Your task to perform on an android device: check android version Image 0: 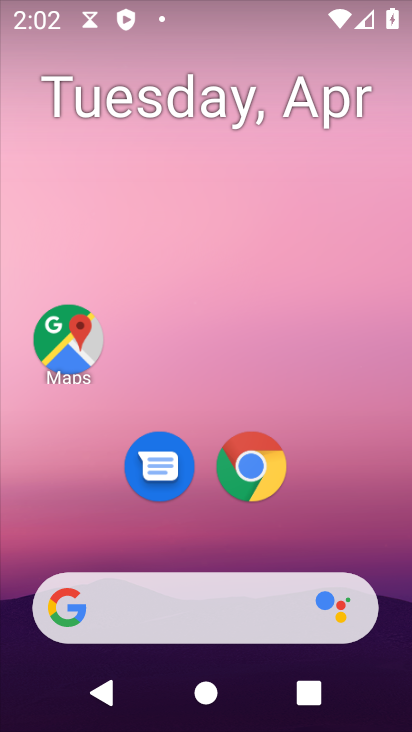
Step 0: drag from (333, 544) to (256, 39)
Your task to perform on an android device: check android version Image 1: 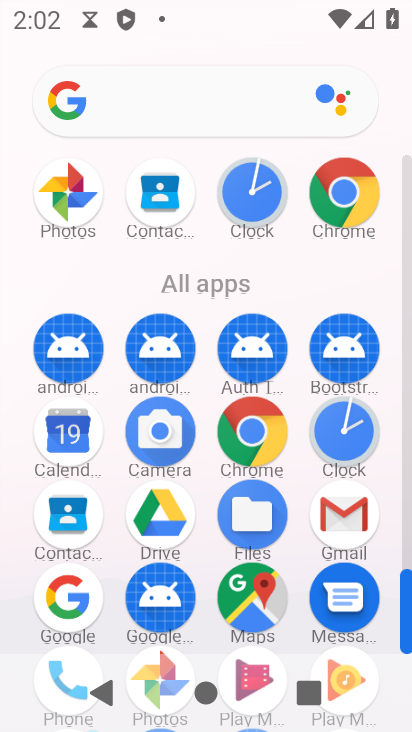
Step 1: drag from (12, 550) to (33, 205)
Your task to perform on an android device: check android version Image 2: 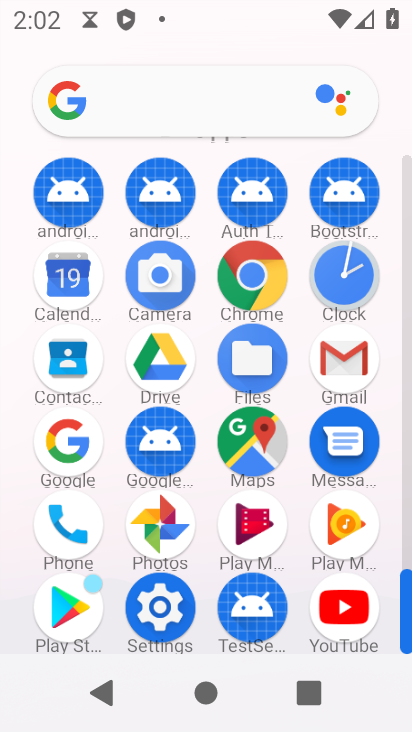
Step 2: click (164, 606)
Your task to perform on an android device: check android version Image 3: 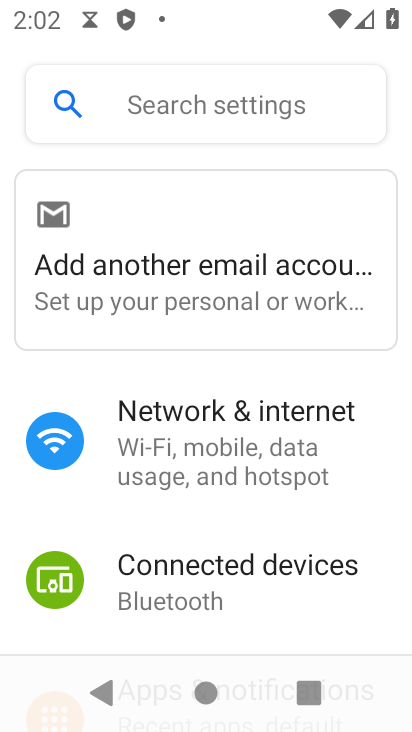
Step 3: drag from (365, 573) to (351, 81)
Your task to perform on an android device: check android version Image 4: 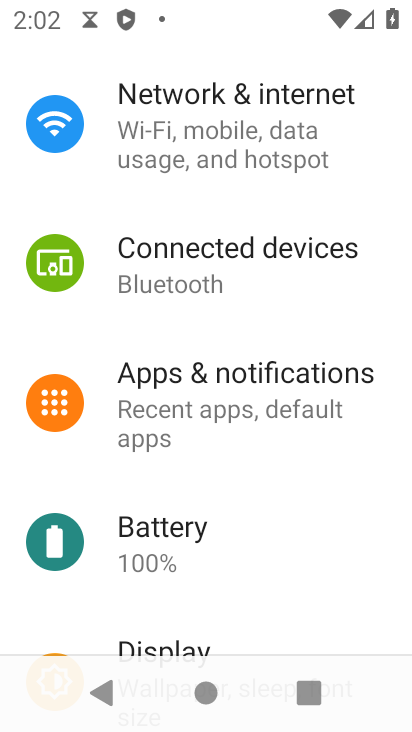
Step 4: drag from (321, 518) to (327, 109)
Your task to perform on an android device: check android version Image 5: 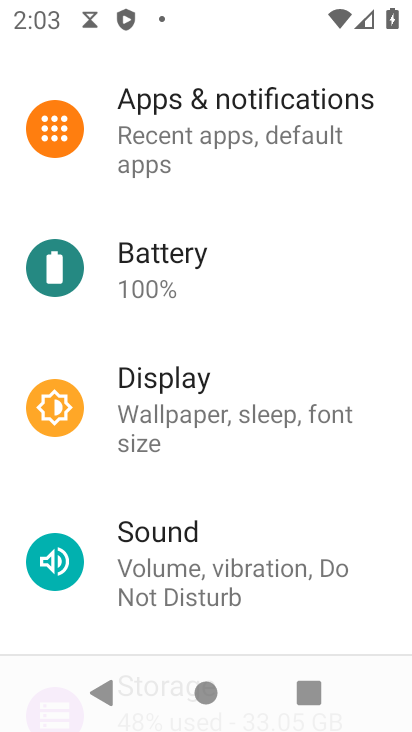
Step 5: drag from (293, 498) to (303, 117)
Your task to perform on an android device: check android version Image 6: 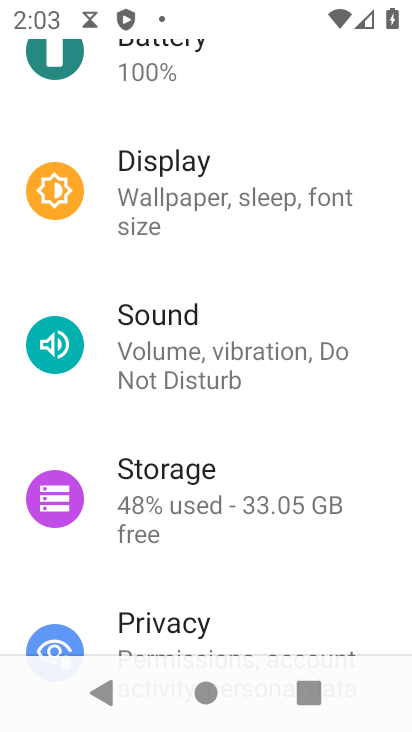
Step 6: drag from (292, 493) to (302, 130)
Your task to perform on an android device: check android version Image 7: 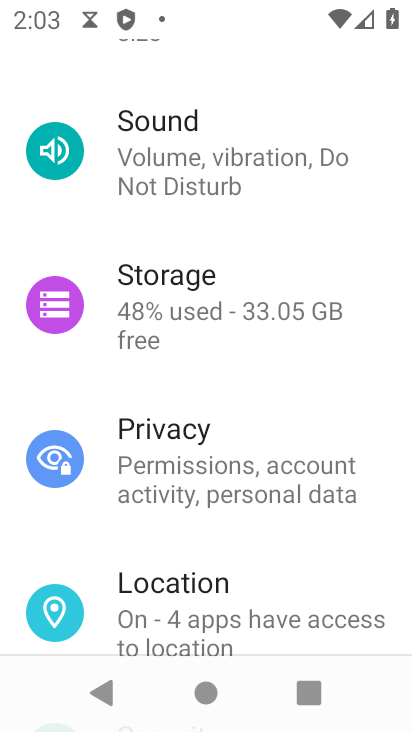
Step 7: drag from (270, 590) to (277, 146)
Your task to perform on an android device: check android version Image 8: 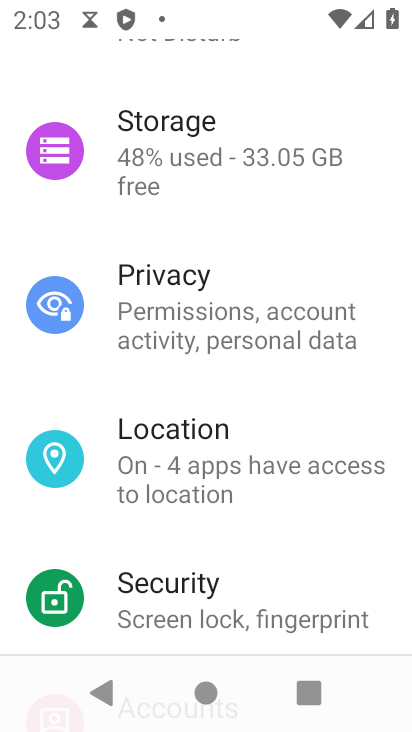
Step 8: drag from (242, 526) to (260, 231)
Your task to perform on an android device: check android version Image 9: 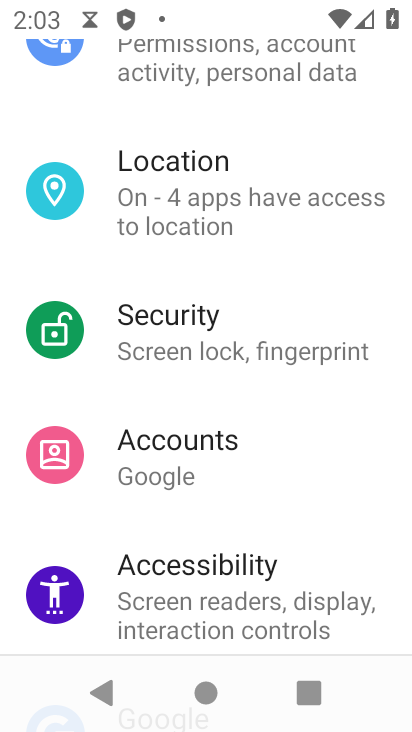
Step 9: drag from (281, 515) to (305, 168)
Your task to perform on an android device: check android version Image 10: 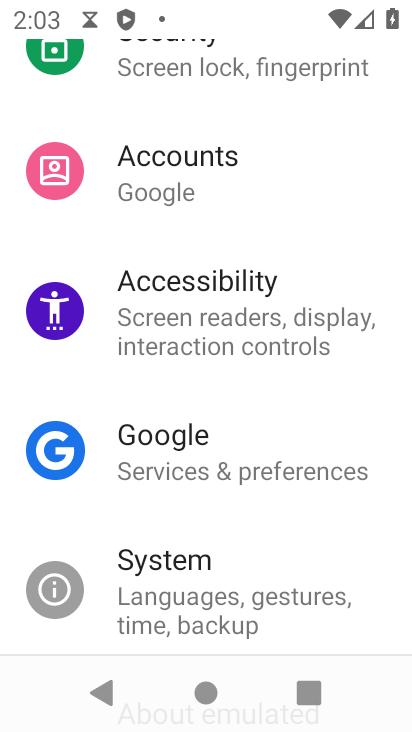
Step 10: drag from (286, 529) to (295, 190)
Your task to perform on an android device: check android version Image 11: 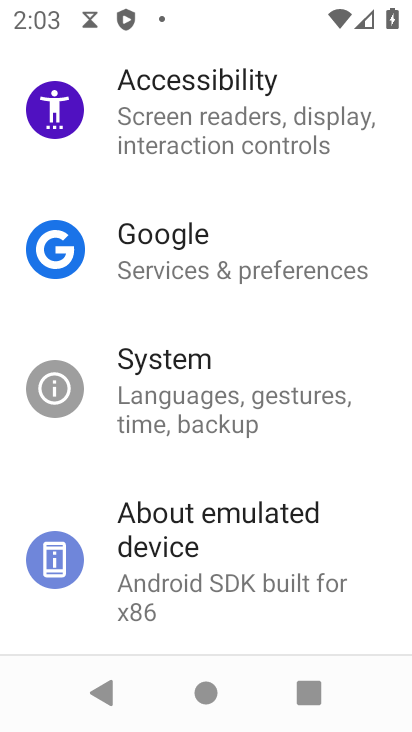
Step 11: drag from (259, 489) to (289, 130)
Your task to perform on an android device: check android version Image 12: 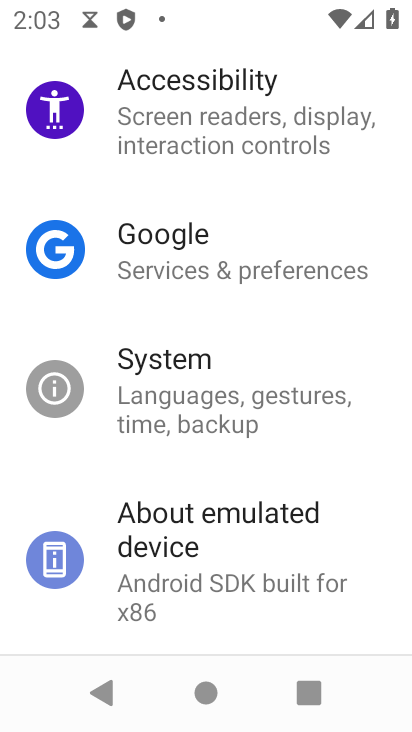
Step 12: click (246, 557)
Your task to perform on an android device: check android version Image 13: 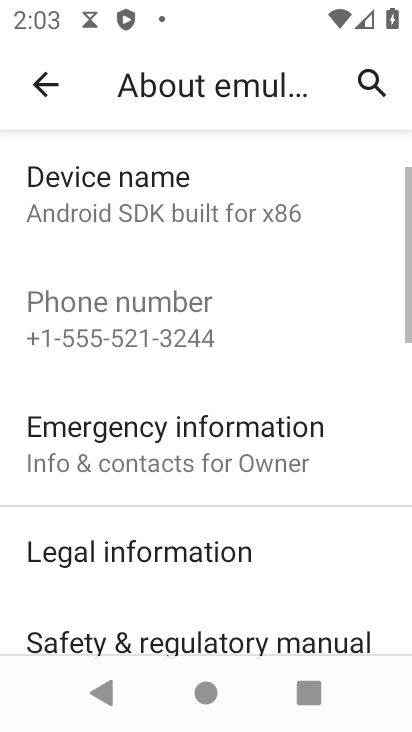
Step 13: drag from (289, 352) to (289, 214)
Your task to perform on an android device: check android version Image 14: 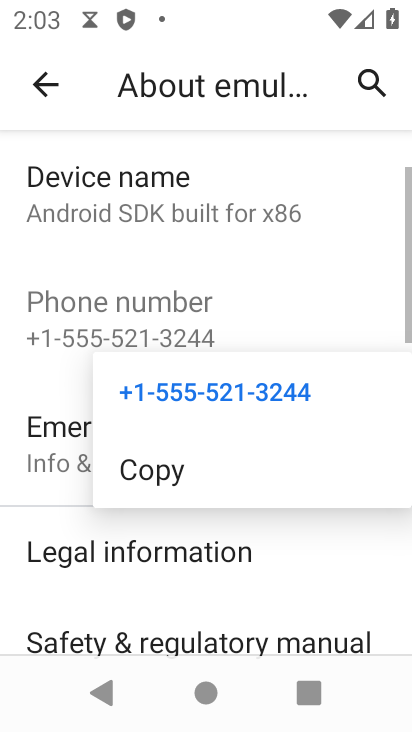
Step 14: click (315, 612)
Your task to perform on an android device: check android version Image 15: 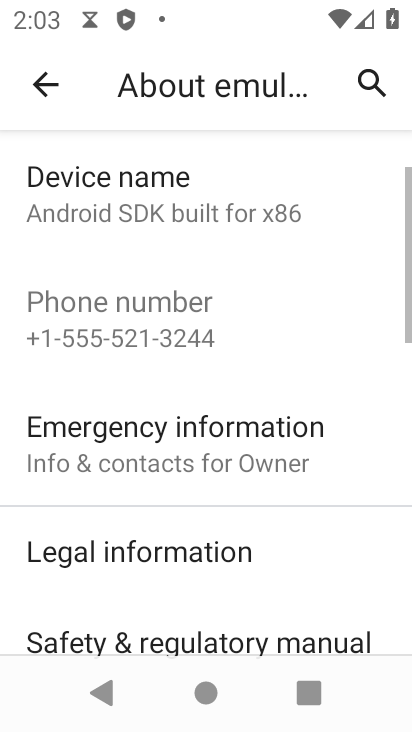
Step 15: task complete